Your task to perform on an android device: Search for the best rated mattress topper on Target. Image 0: 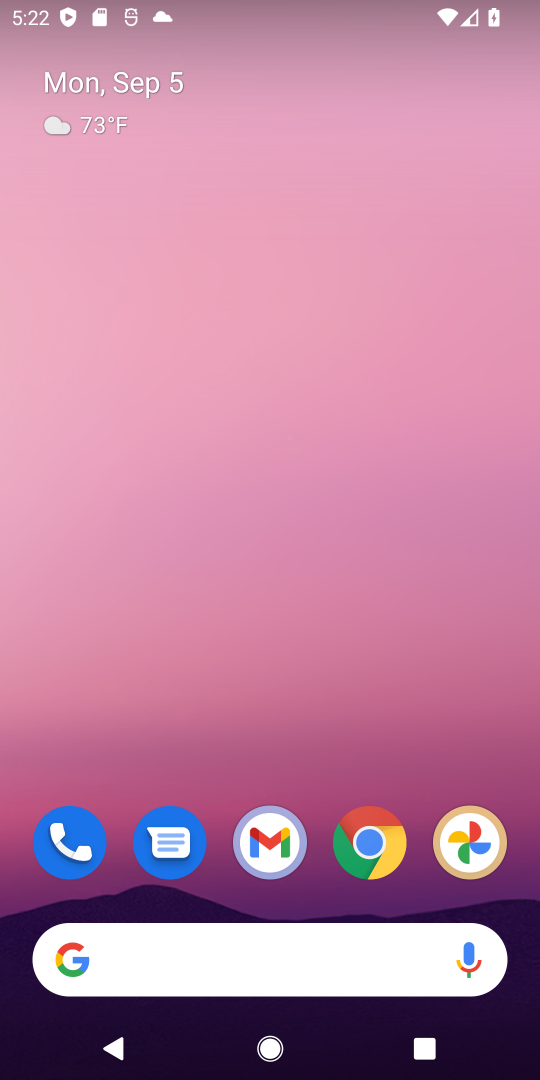
Step 0: click (371, 845)
Your task to perform on an android device: Search for the best rated mattress topper on Target. Image 1: 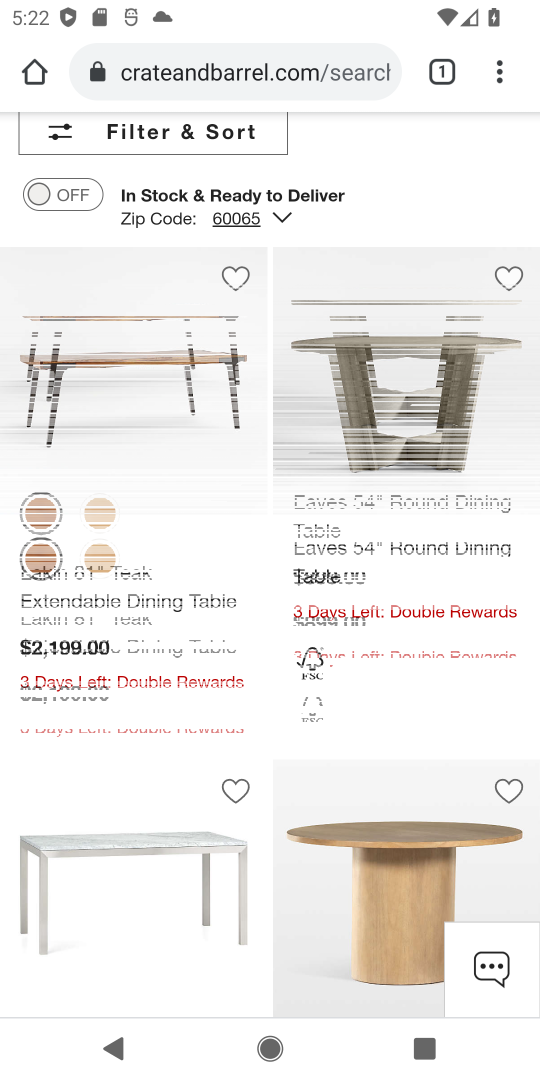
Step 1: click (306, 73)
Your task to perform on an android device: Search for the best rated mattress topper on Target. Image 2: 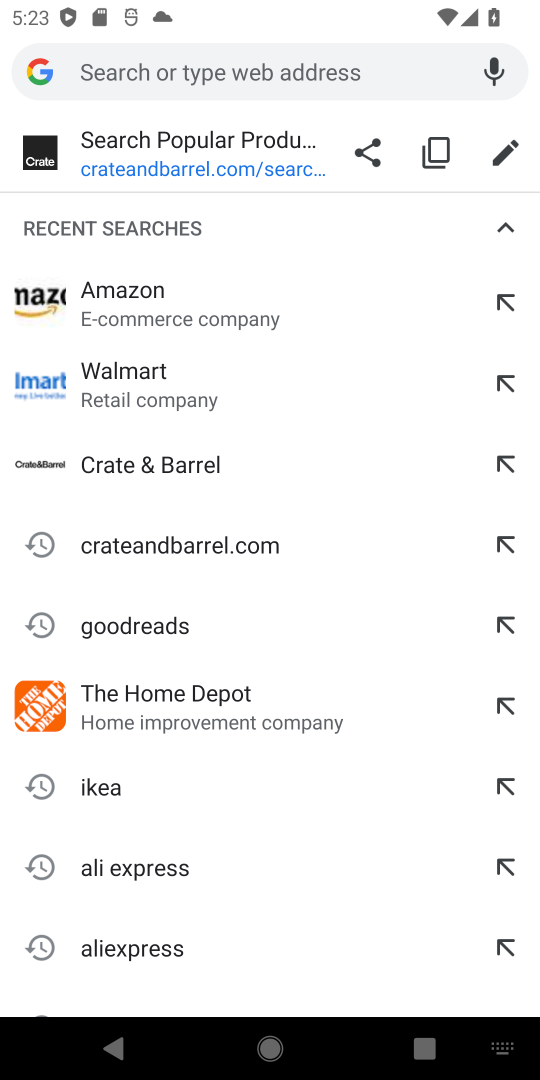
Step 2: type "Target"
Your task to perform on an android device: Search for the best rated mattress topper on Target. Image 3: 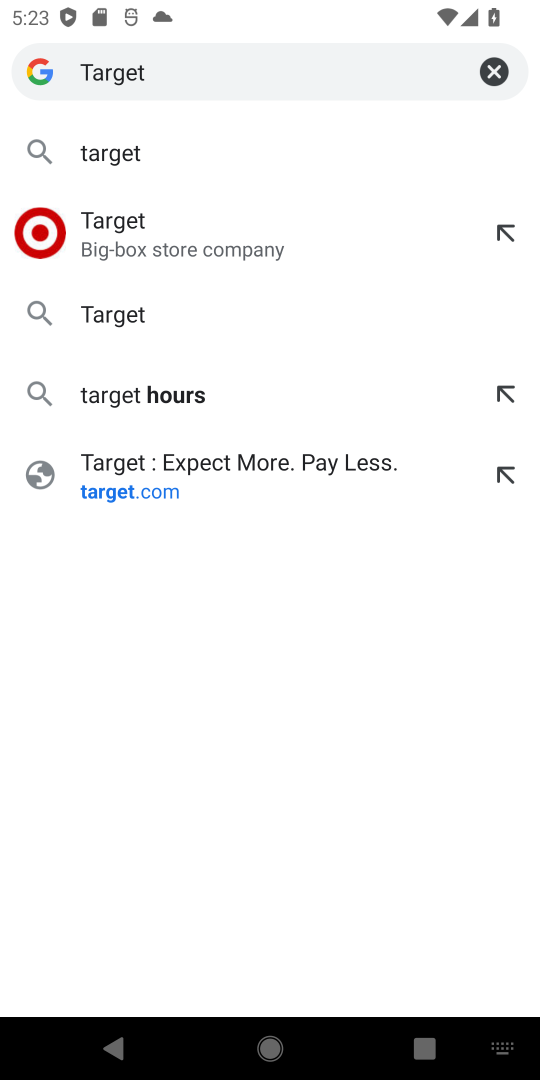
Step 3: click (96, 145)
Your task to perform on an android device: Search for the best rated mattress topper on Target. Image 4: 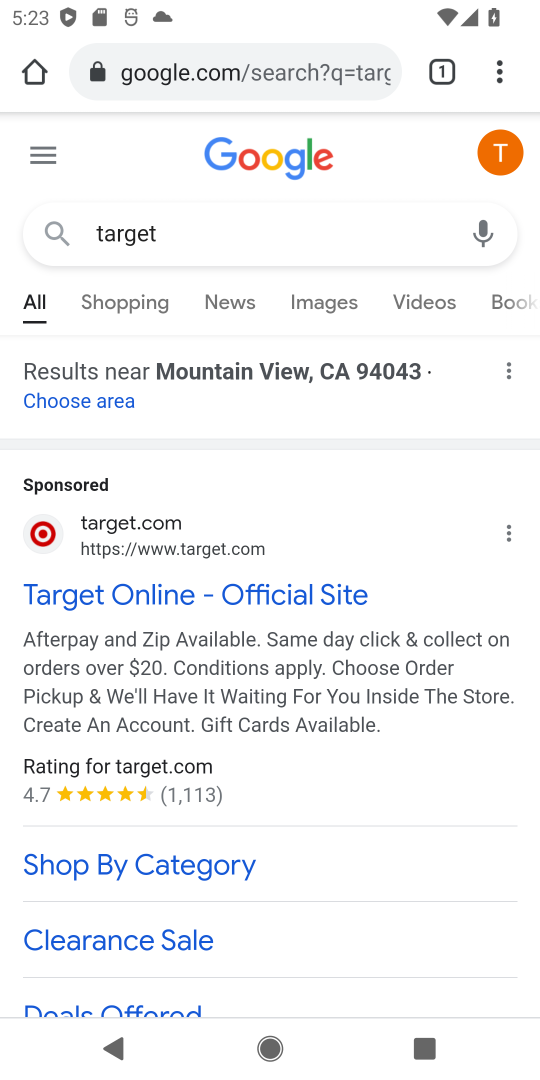
Step 4: drag from (304, 766) to (401, 299)
Your task to perform on an android device: Search for the best rated mattress topper on Target. Image 5: 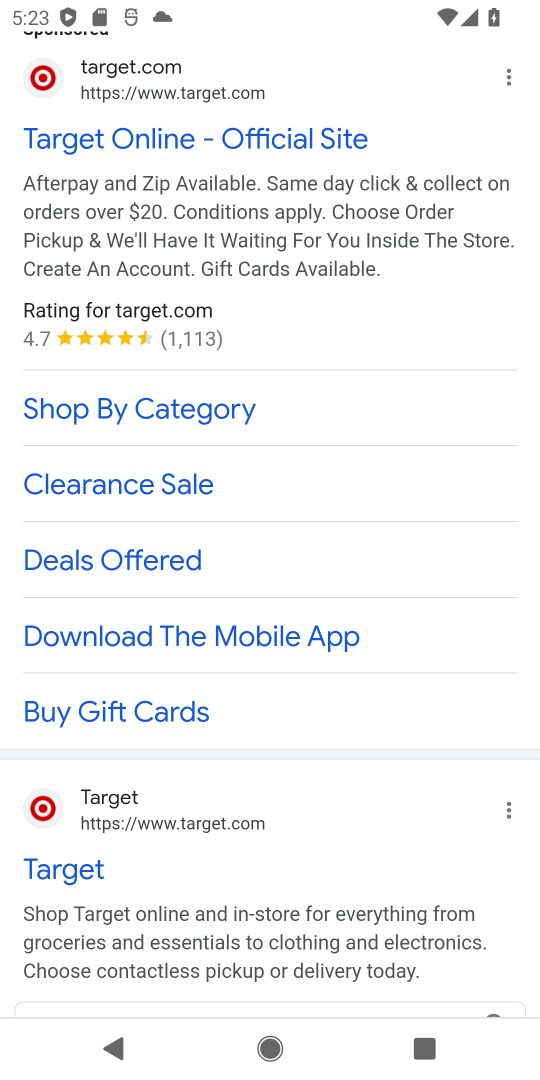
Step 5: click (119, 884)
Your task to perform on an android device: Search for the best rated mattress topper on Target. Image 6: 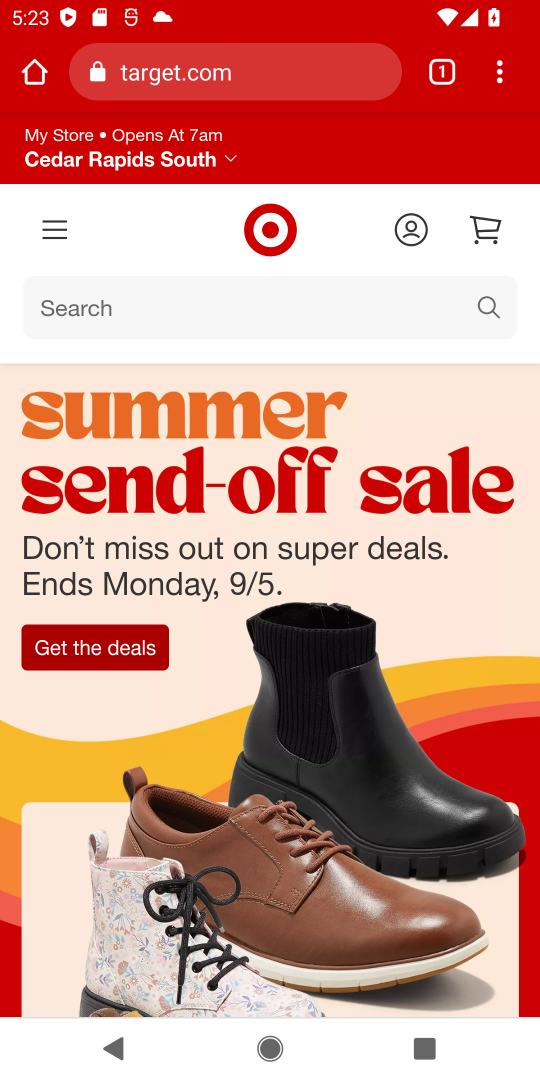
Step 6: click (169, 319)
Your task to perform on an android device: Search for the best rated mattress topper on Target. Image 7: 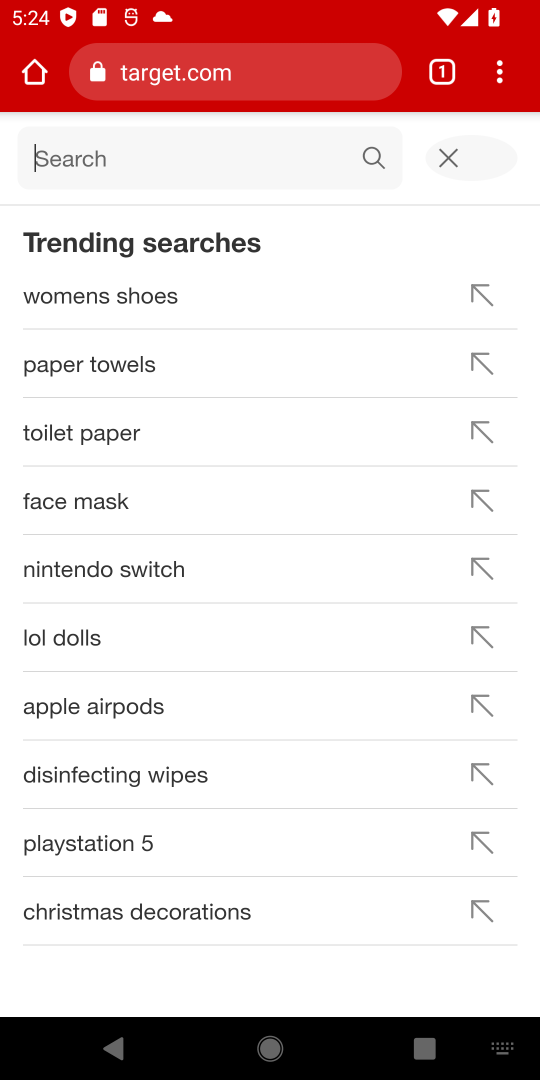
Step 7: type "best rated mattress topper"
Your task to perform on an android device: Search for the best rated mattress topper on Target. Image 8: 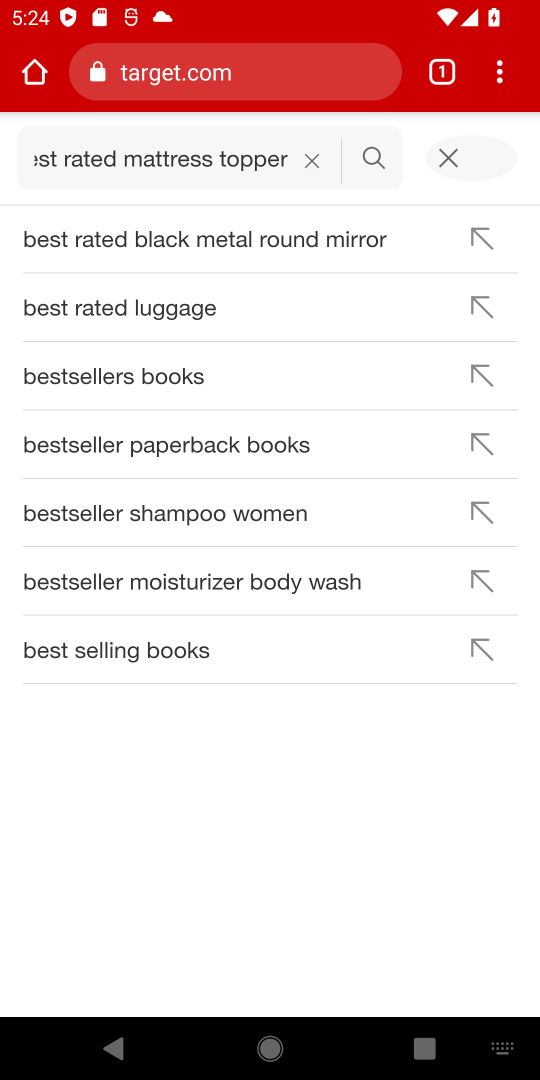
Step 8: click (373, 167)
Your task to perform on an android device: Search for the best rated mattress topper on Target. Image 9: 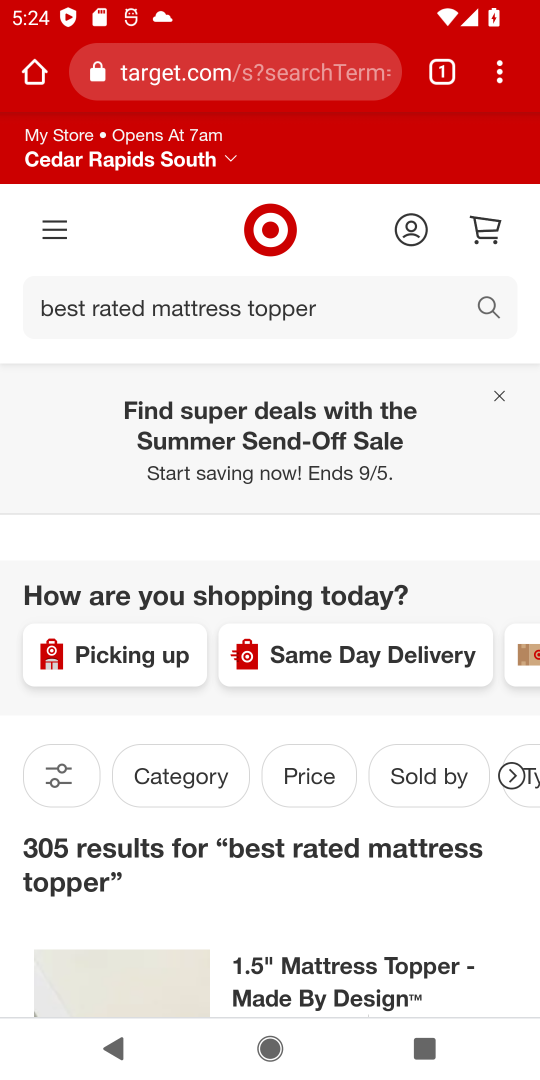
Step 9: task complete